Your task to perform on an android device: Open Google Maps Image 0: 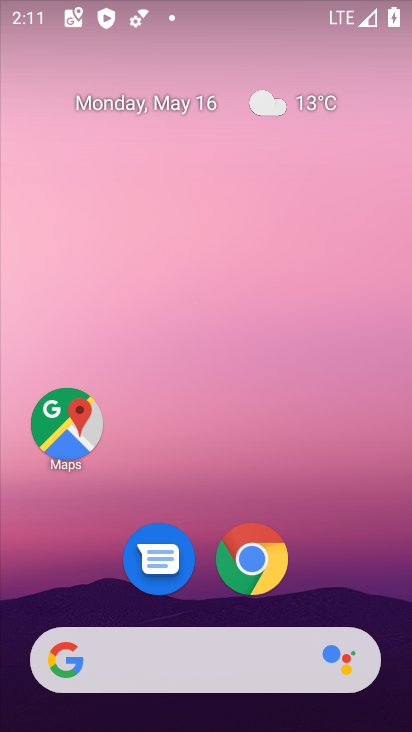
Step 0: click (74, 433)
Your task to perform on an android device: Open Google Maps Image 1: 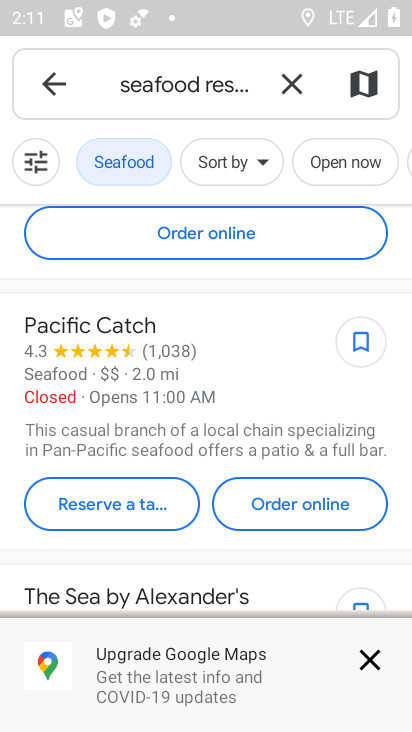
Step 1: task complete